Your task to perform on an android device: Open Youtube and go to "Your channel" Image 0: 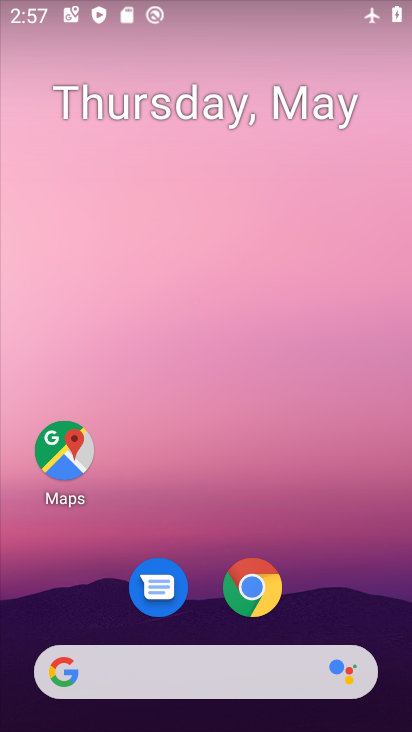
Step 0: drag from (264, 582) to (271, 123)
Your task to perform on an android device: Open Youtube and go to "Your channel" Image 1: 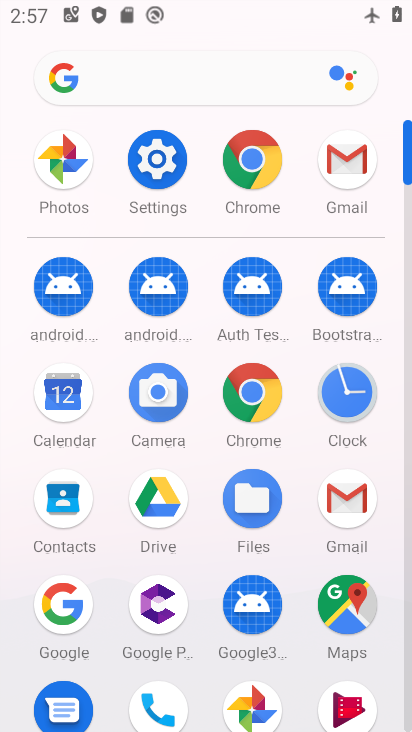
Step 1: drag from (280, 352) to (303, 1)
Your task to perform on an android device: Open Youtube and go to "Your channel" Image 2: 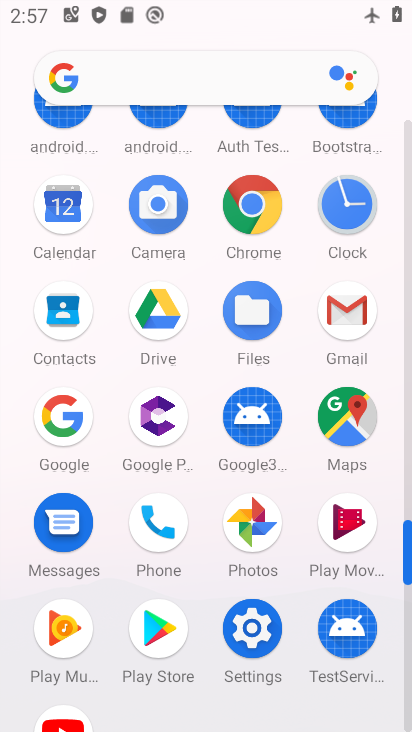
Step 2: drag from (227, 433) to (277, 0)
Your task to perform on an android device: Open Youtube and go to "Your channel" Image 3: 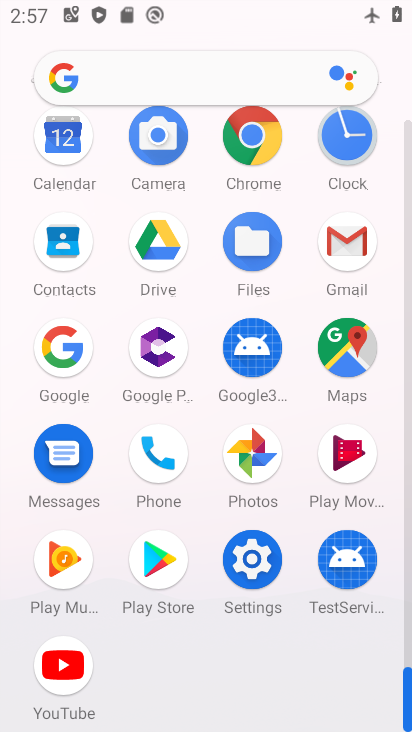
Step 3: click (80, 664)
Your task to perform on an android device: Open Youtube and go to "Your channel" Image 4: 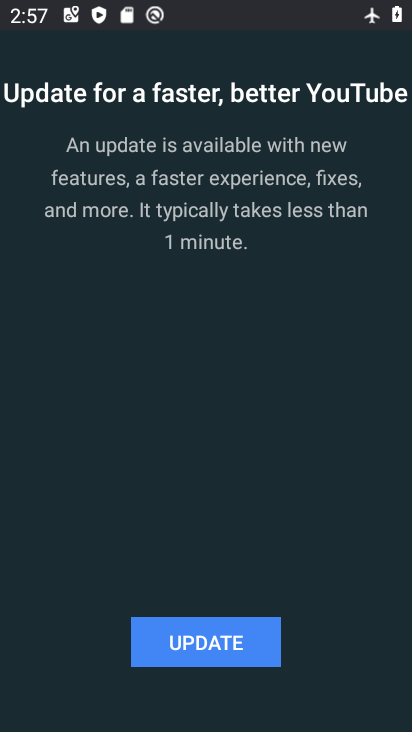
Step 4: task complete